Your task to perform on an android device: Add "macbook" to the cart on costco, then select checkout. Image 0: 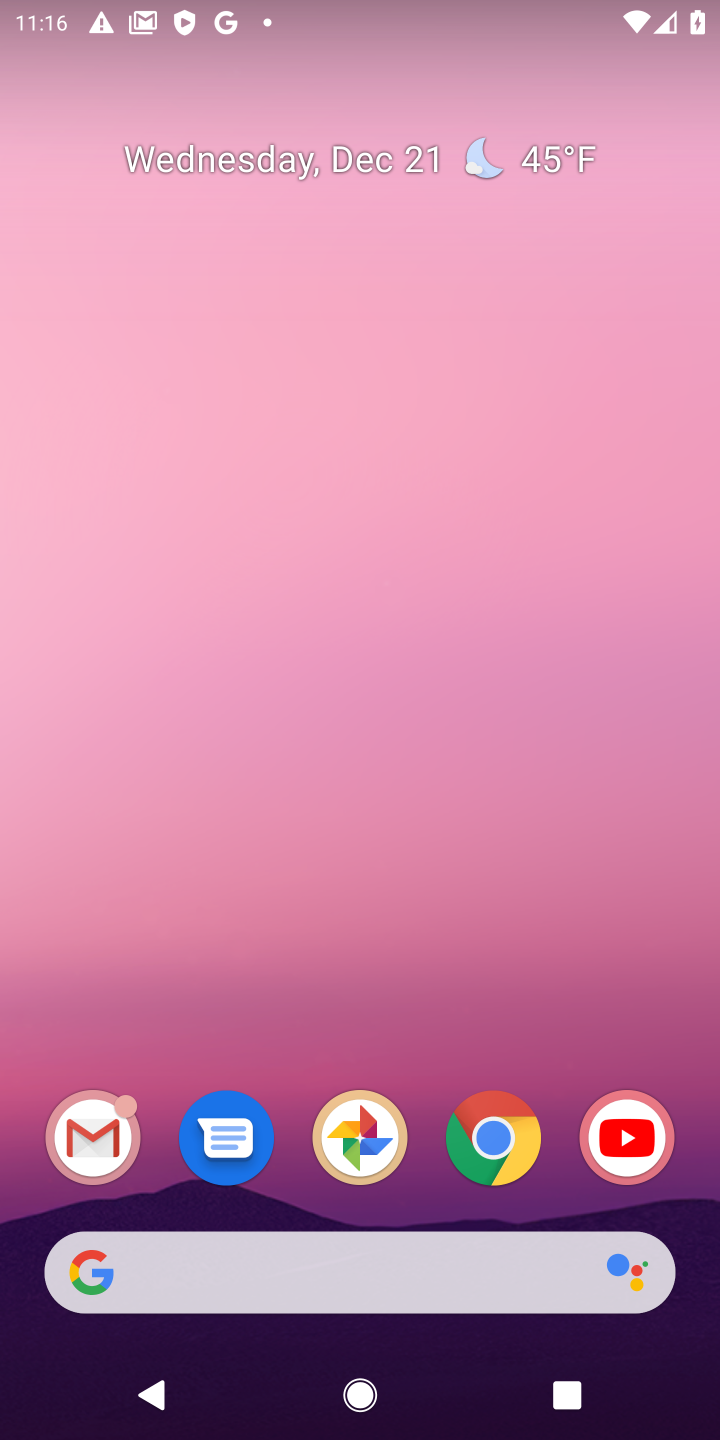
Step 0: click (501, 1145)
Your task to perform on an android device: Add "macbook" to the cart on costco, then select checkout. Image 1: 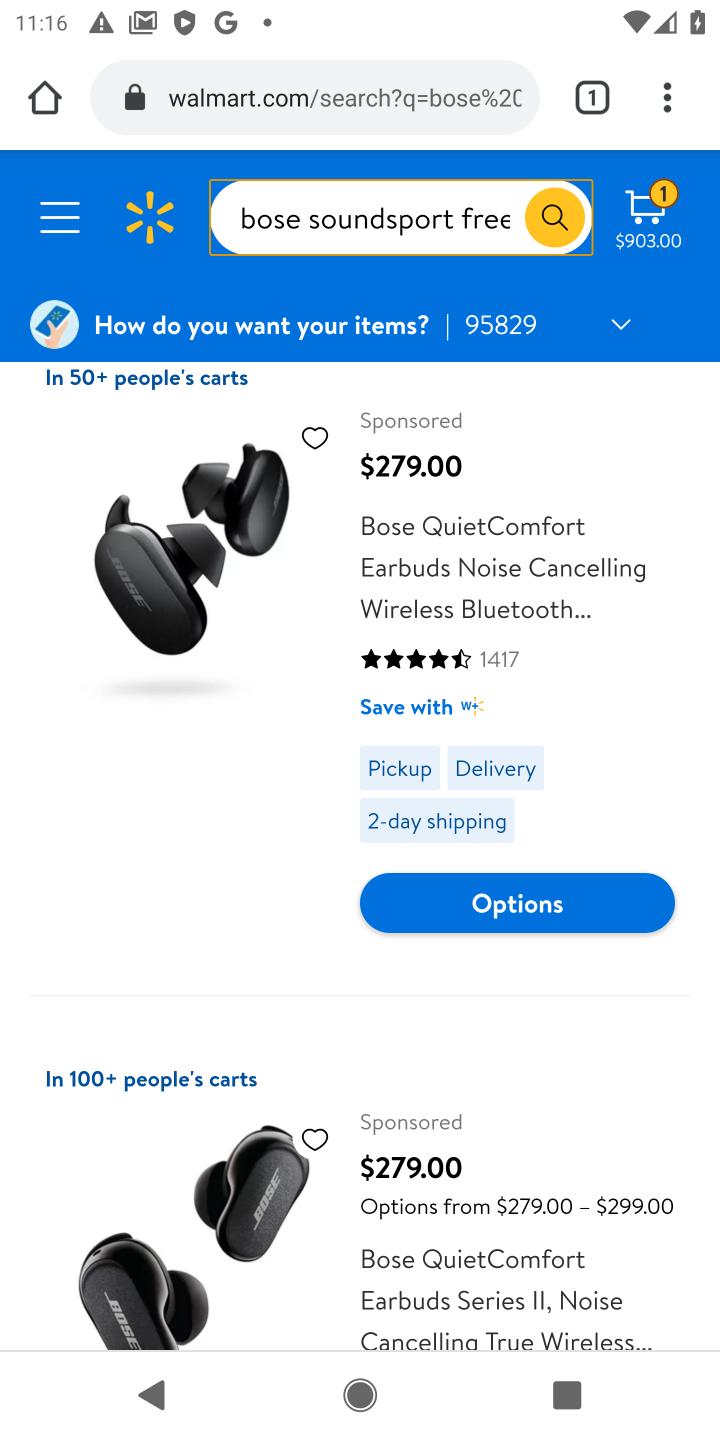
Step 1: click (281, 103)
Your task to perform on an android device: Add "macbook" to the cart on costco, then select checkout. Image 2: 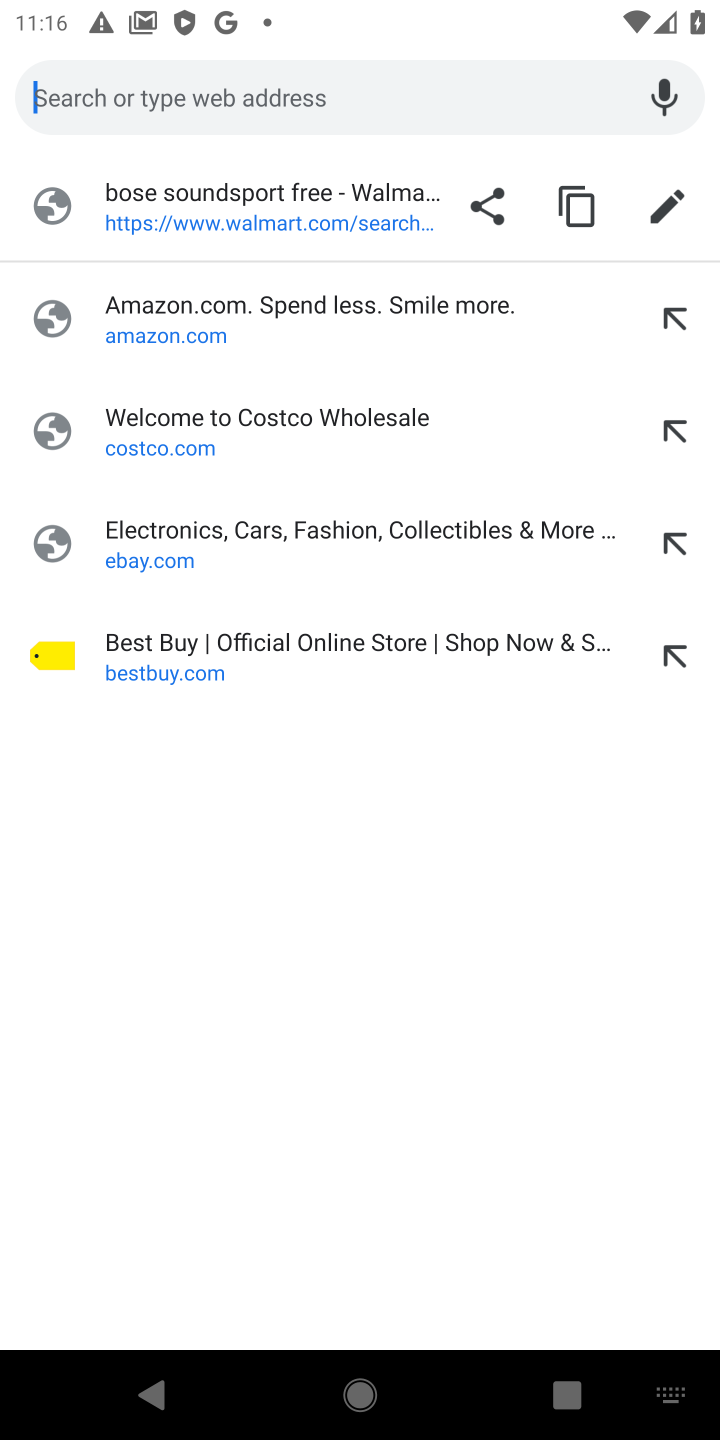
Step 2: click (134, 426)
Your task to perform on an android device: Add "macbook" to the cart on costco, then select checkout. Image 3: 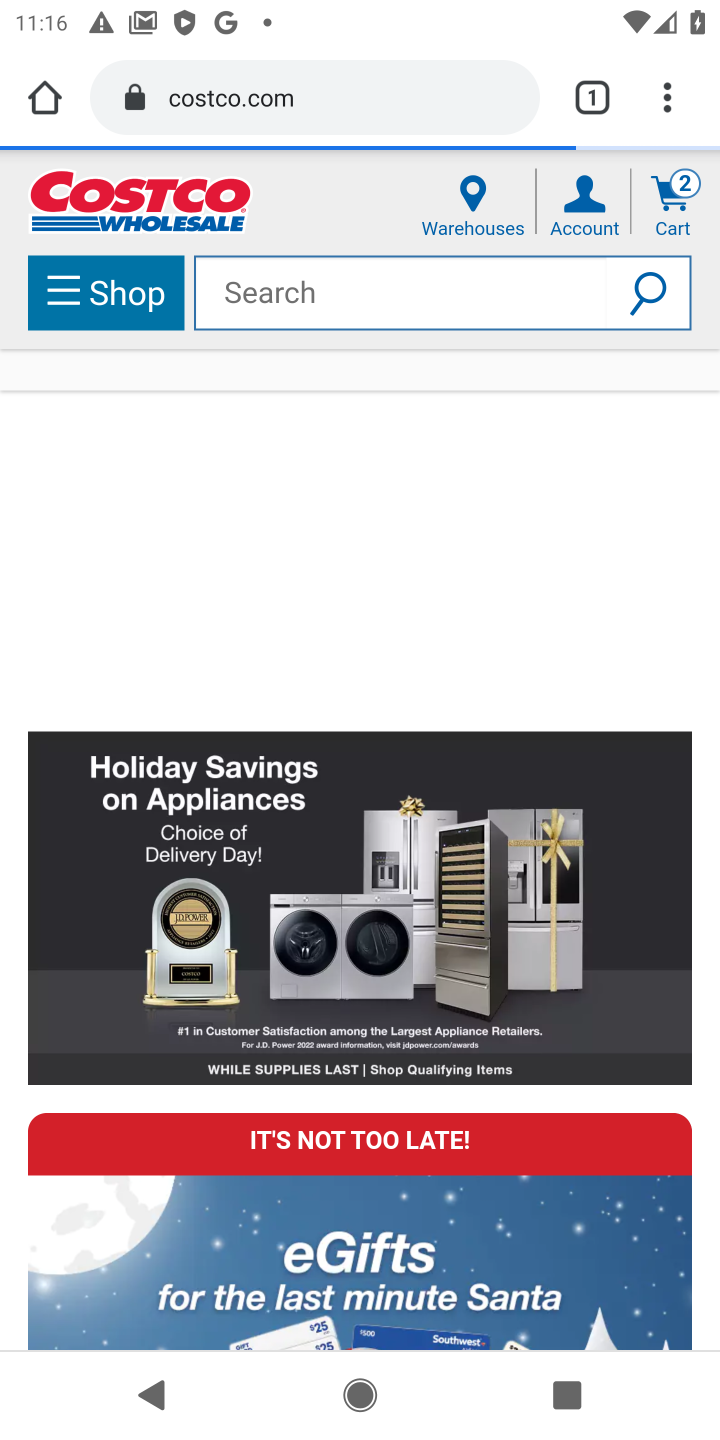
Step 3: click (274, 310)
Your task to perform on an android device: Add "macbook" to the cart on costco, then select checkout. Image 4: 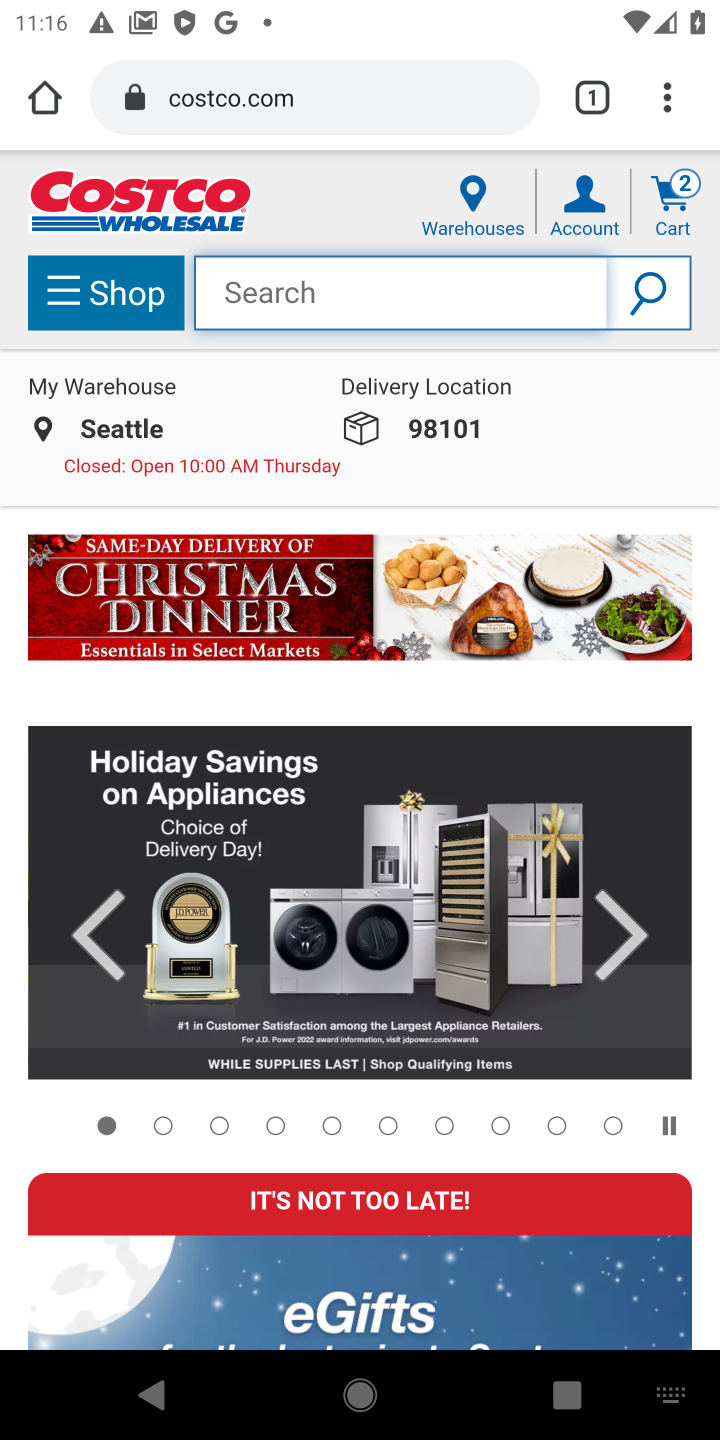
Step 4: type "macbook"
Your task to perform on an android device: Add "macbook" to the cart on costco, then select checkout. Image 5: 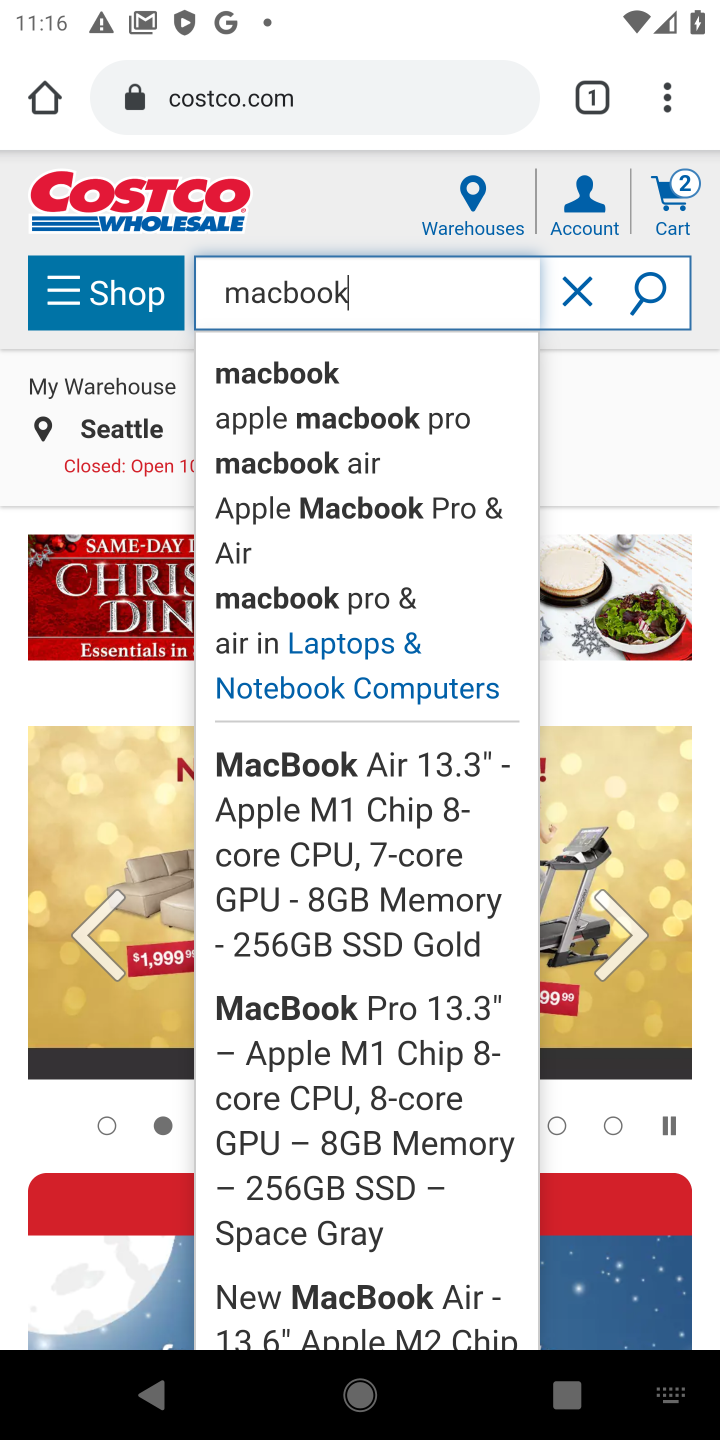
Step 5: click (662, 289)
Your task to perform on an android device: Add "macbook" to the cart on costco, then select checkout. Image 6: 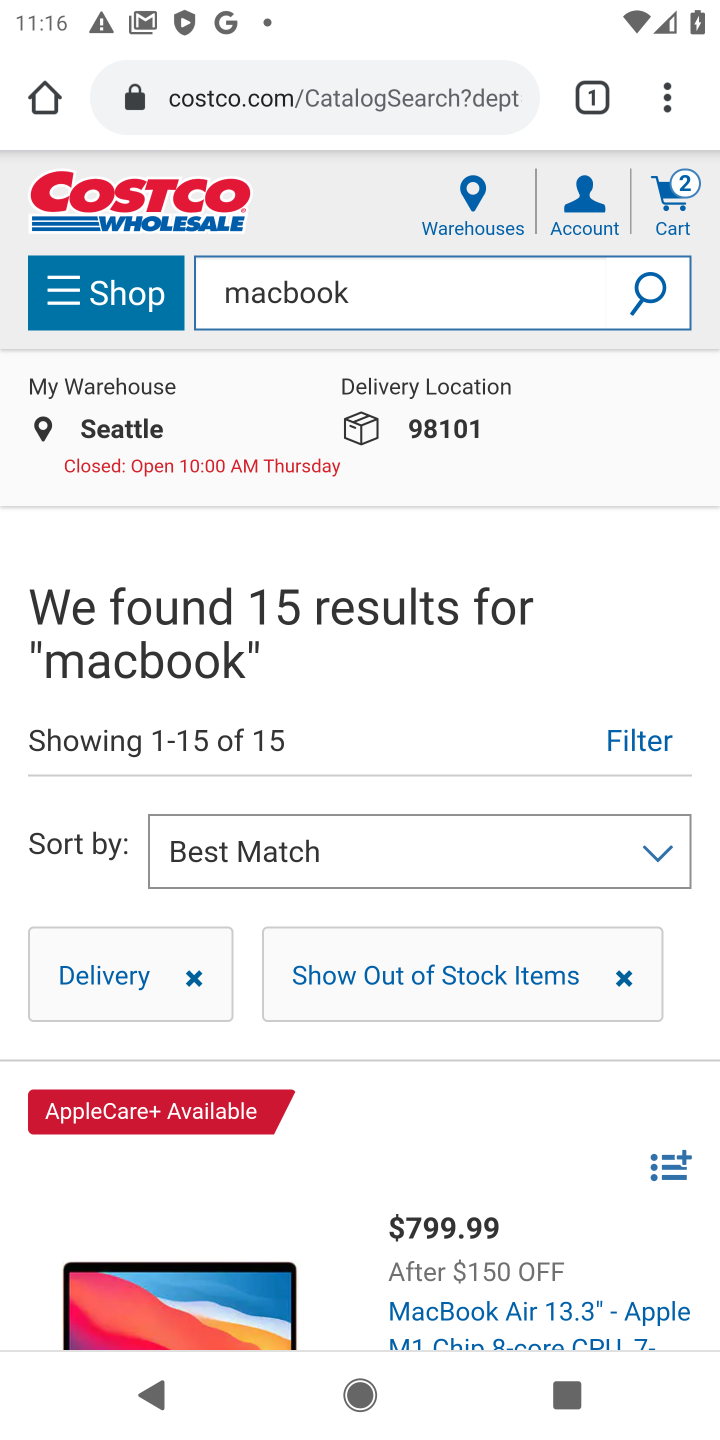
Step 6: drag from (305, 1024) to (317, 540)
Your task to perform on an android device: Add "macbook" to the cart on costco, then select checkout. Image 7: 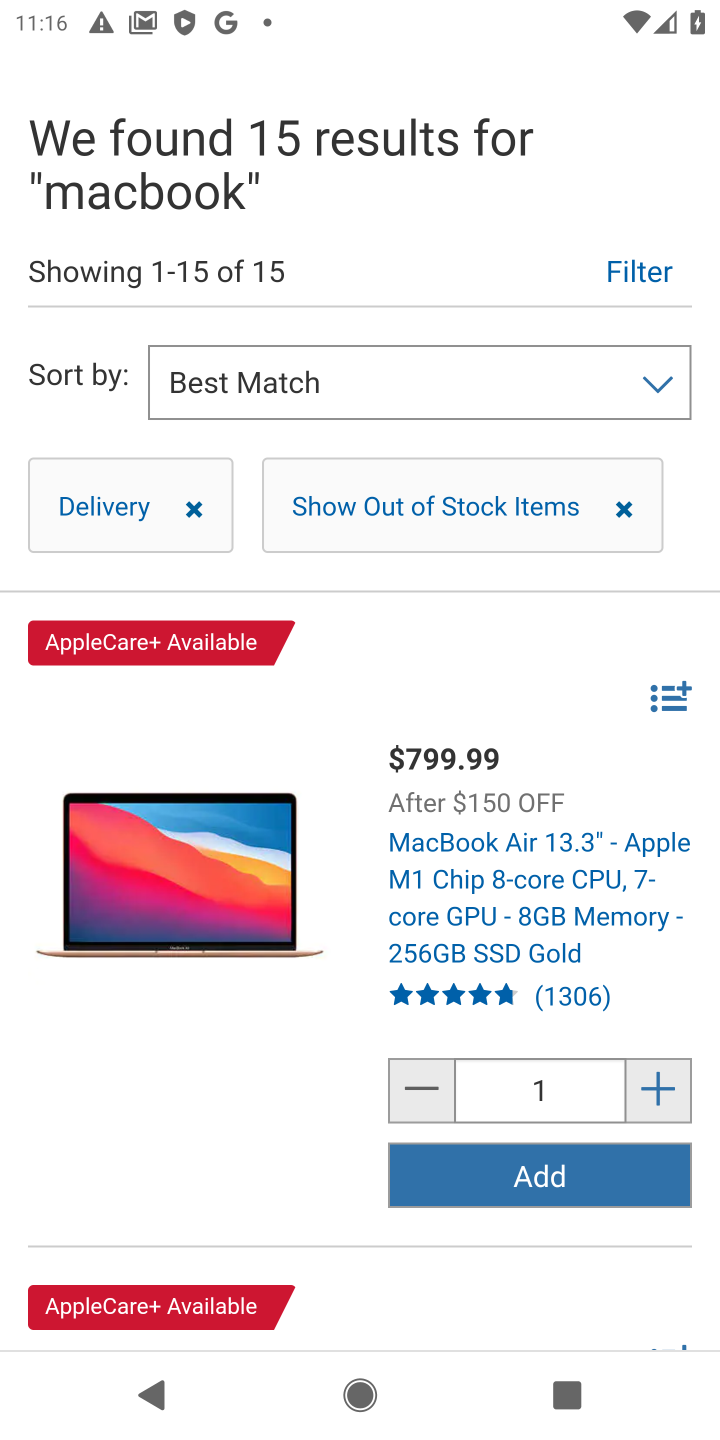
Step 7: click (554, 1192)
Your task to perform on an android device: Add "macbook" to the cart on costco, then select checkout. Image 8: 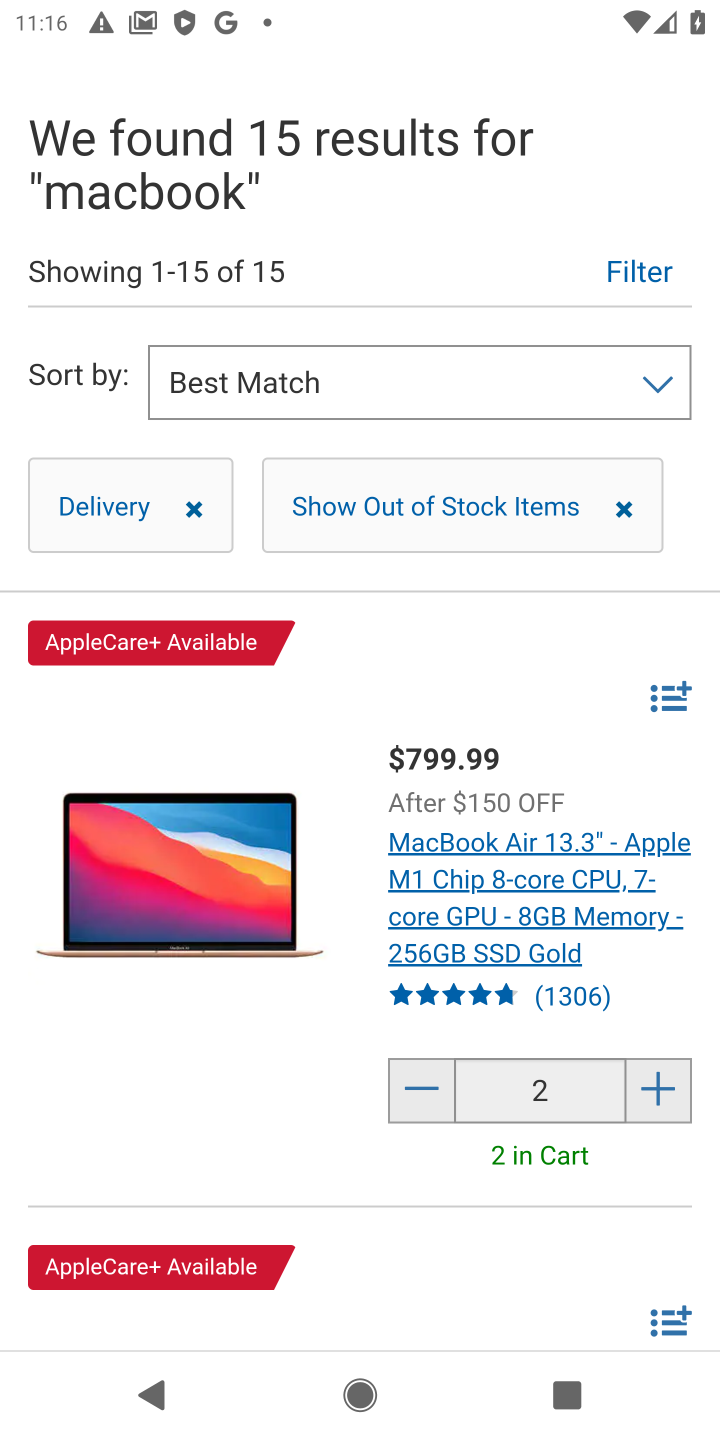
Step 8: drag from (472, 438) to (488, 998)
Your task to perform on an android device: Add "macbook" to the cart on costco, then select checkout. Image 9: 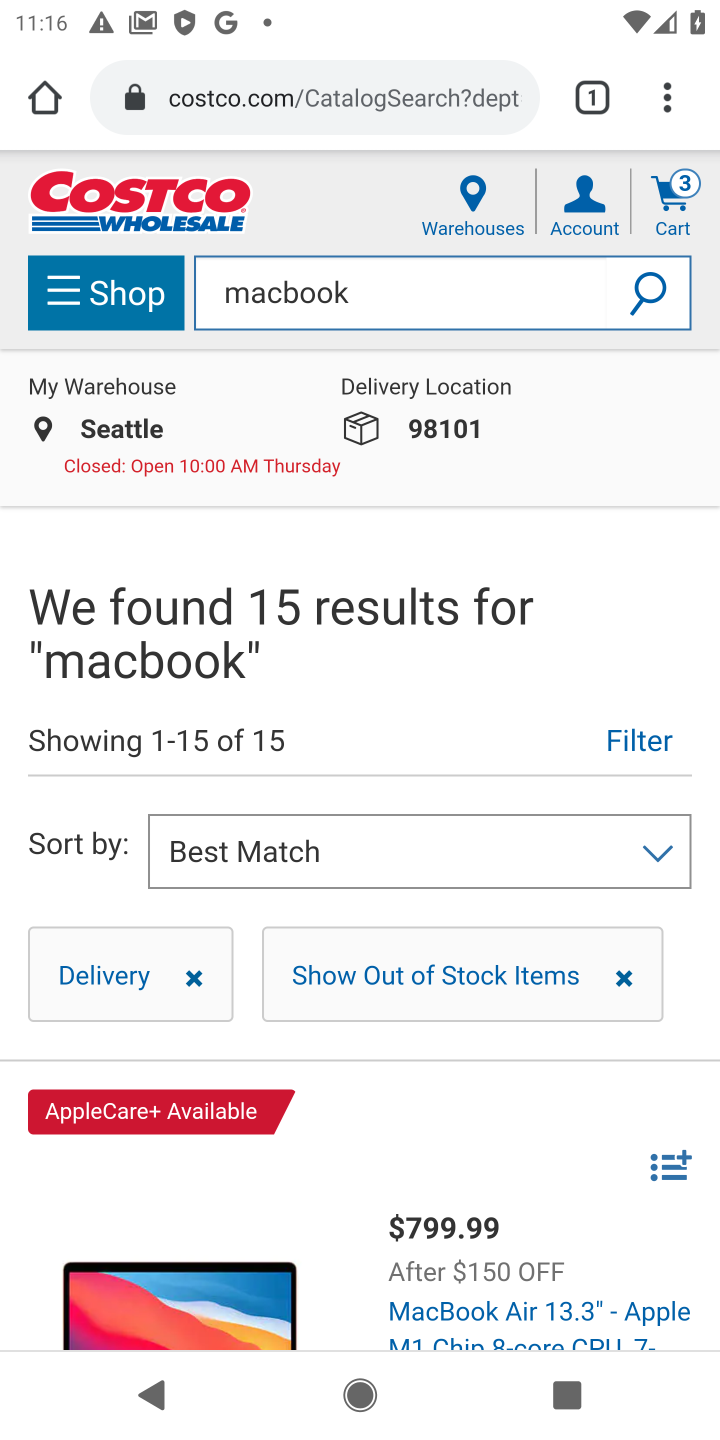
Step 9: click (666, 197)
Your task to perform on an android device: Add "macbook" to the cart on costco, then select checkout. Image 10: 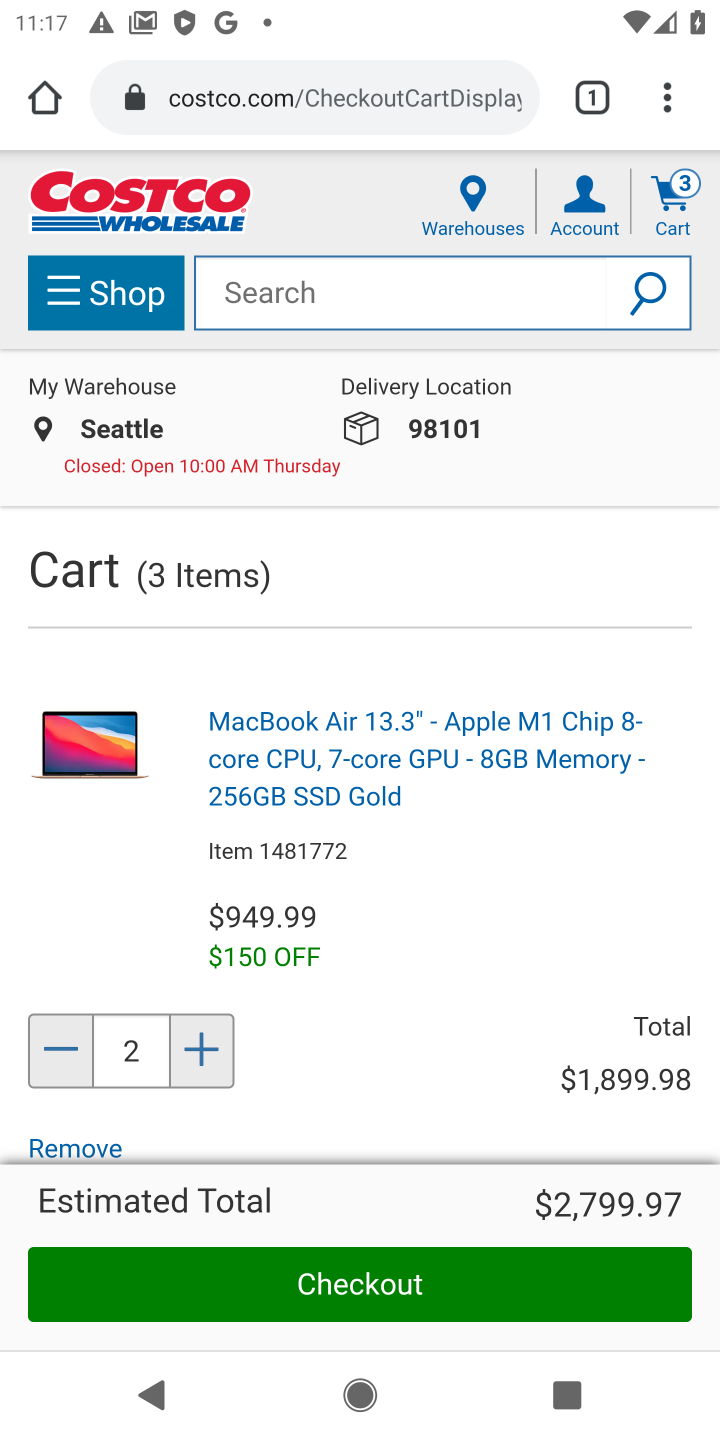
Step 10: click (354, 1276)
Your task to perform on an android device: Add "macbook" to the cart on costco, then select checkout. Image 11: 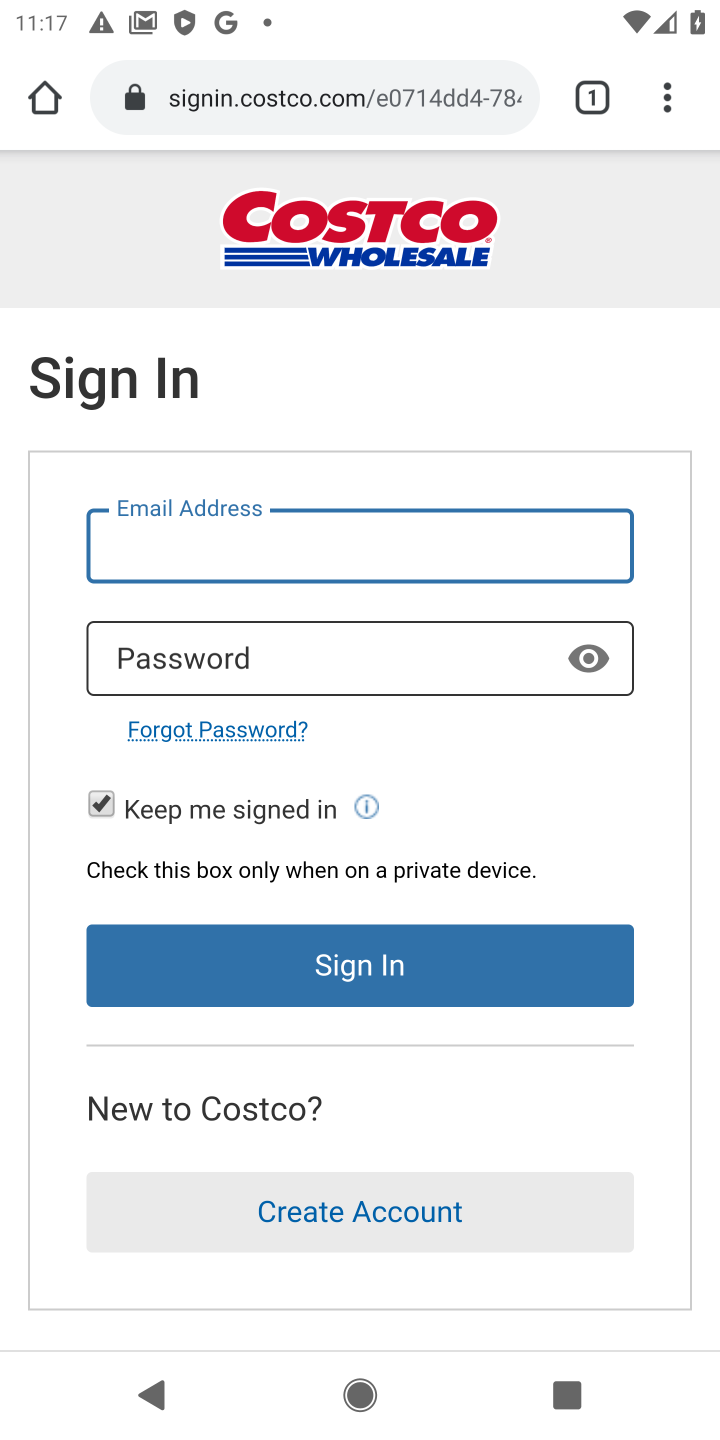
Step 11: task complete